Your task to perform on an android device: Check the news Image 0: 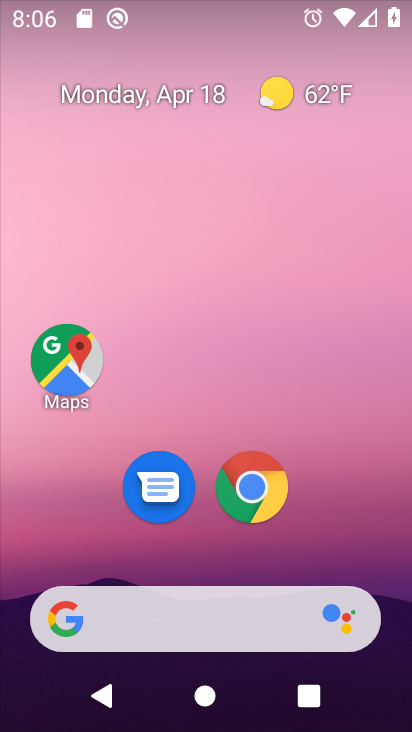
Step 0: press home button
Your task to perform on an android device: Check the news Image 1: 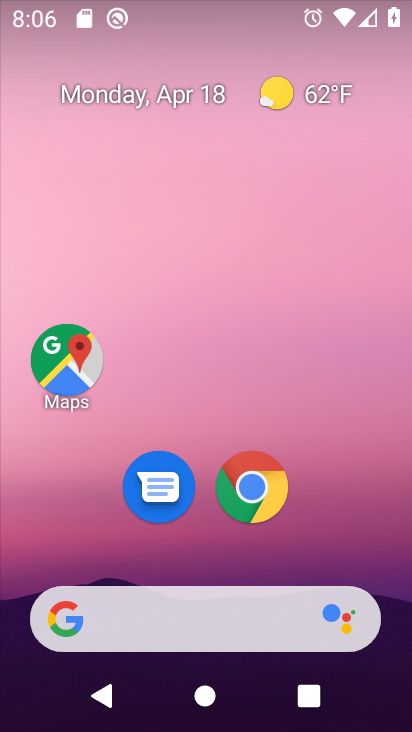
Step 1: task complete